Your task to perform on an android device: open app "YouTube Kids" (install if not already installed) Image 0: 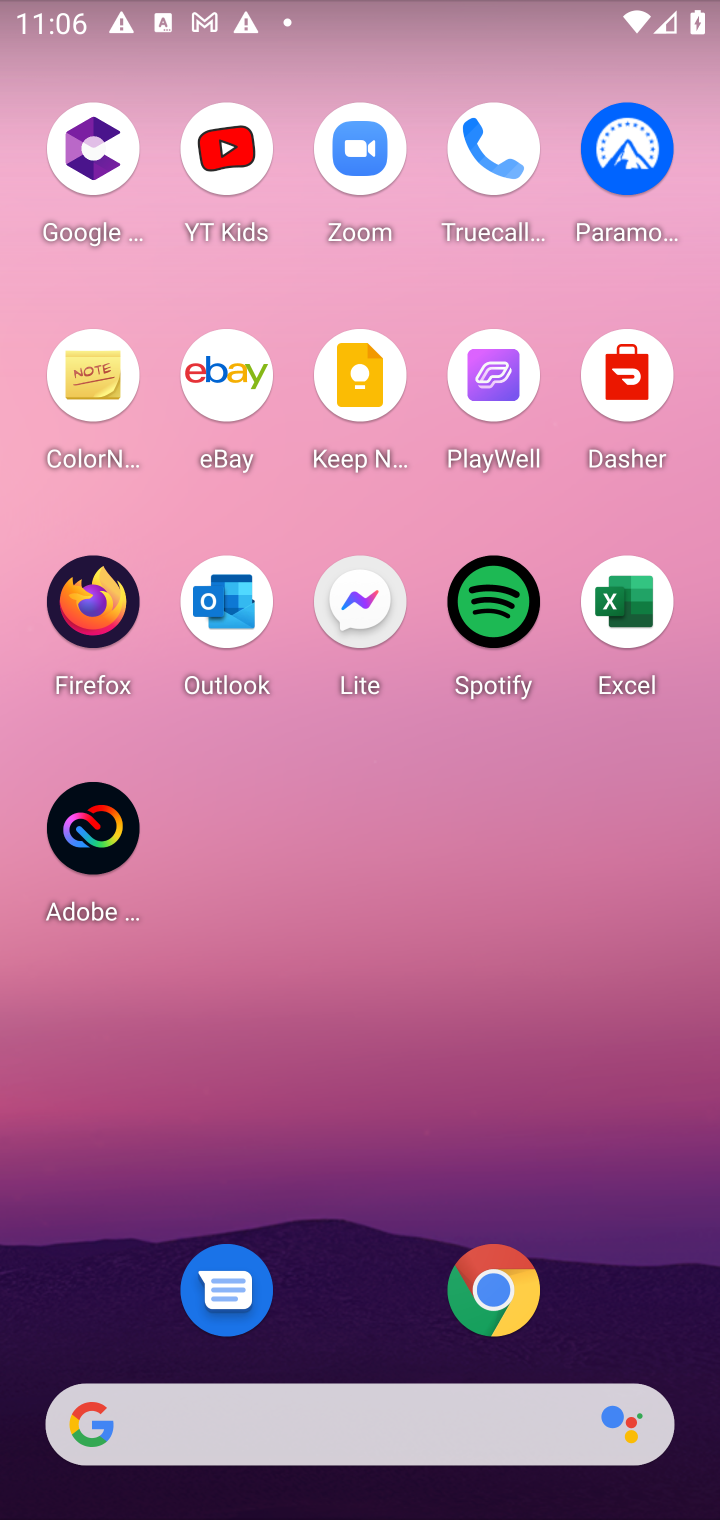
Step 0: press home button
Your task to perform on an android device: open app "YouTube Kids" (install if not already installed) Image 1: 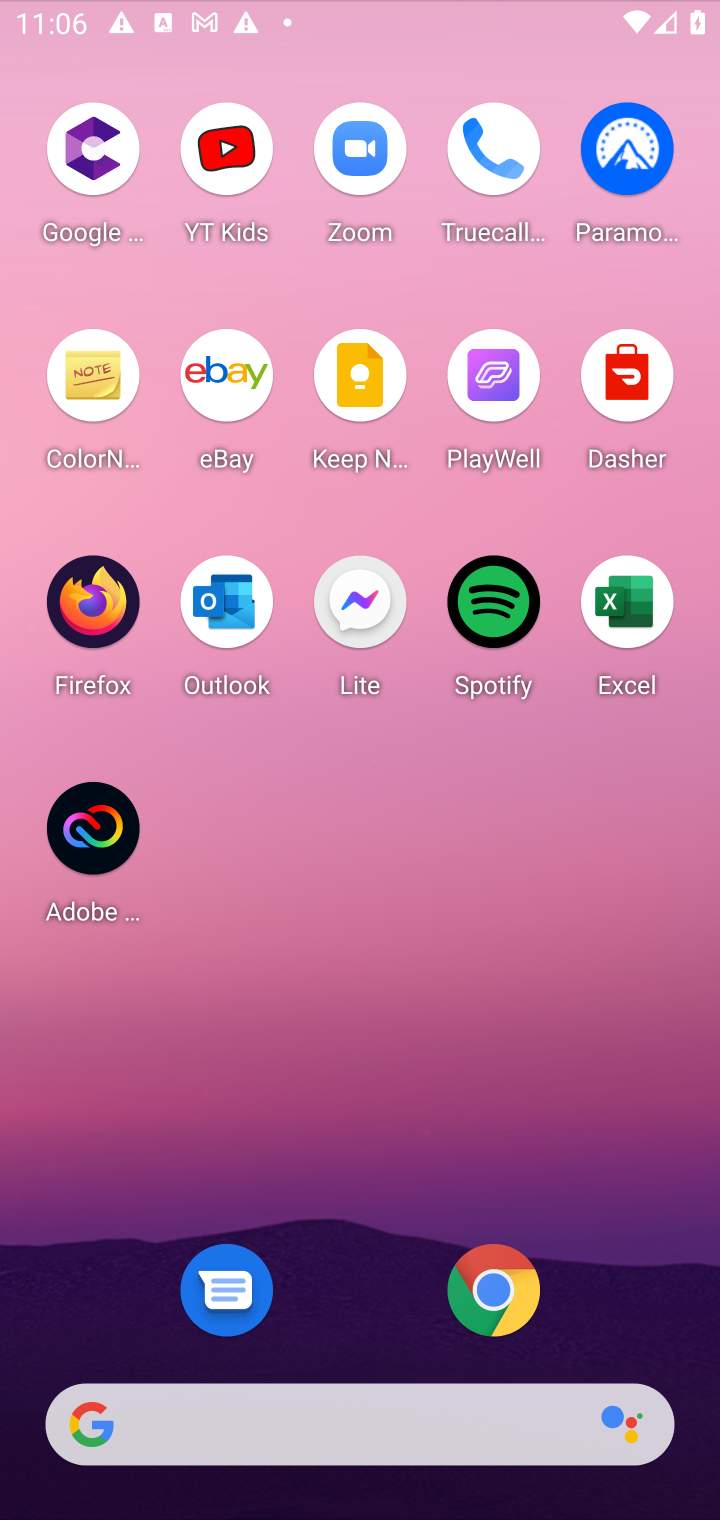
Step 1: drag from (640, 1282) to (607, 158)
Your task to perform on an android device: open app "YouTube Kids" (install if not already installed) Image 2: 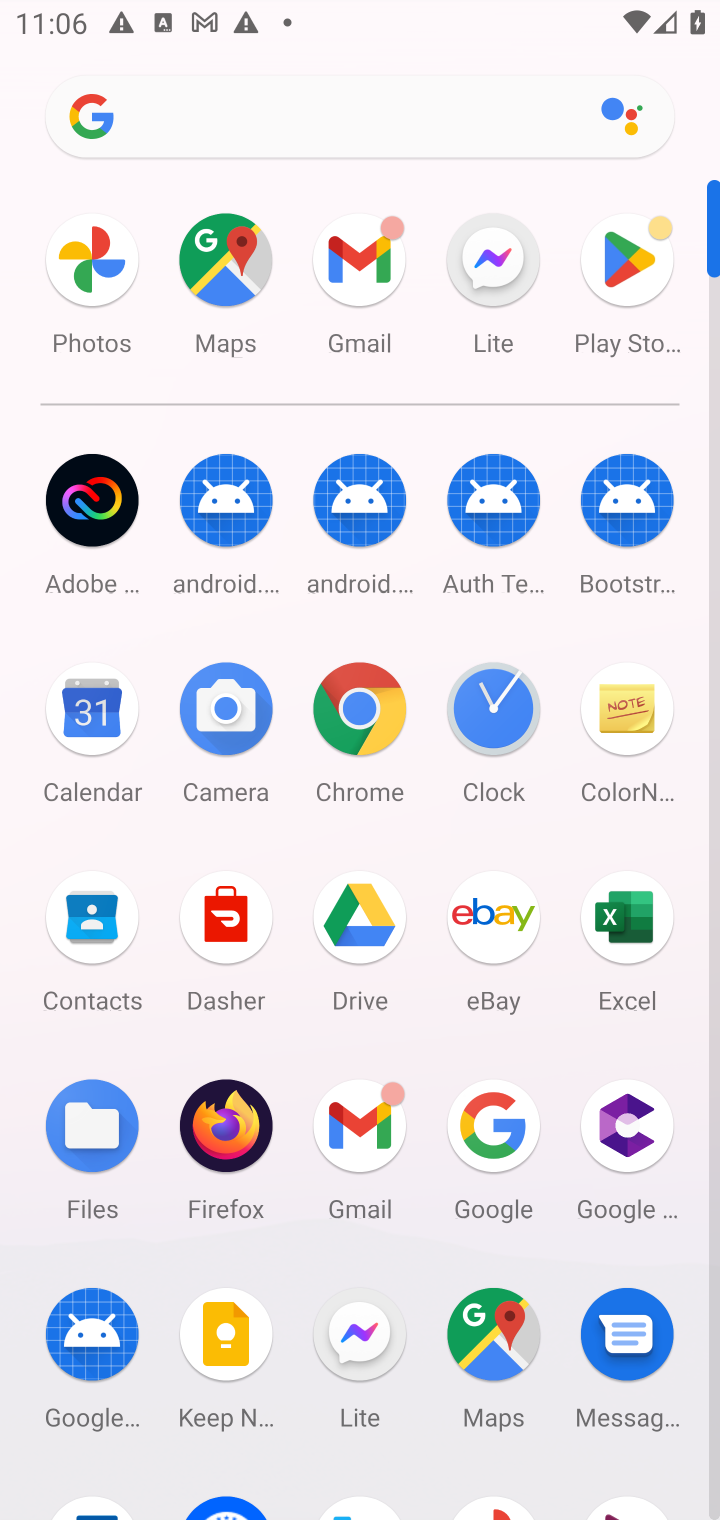
Step 2: click (630, 263)
Your task to perform on an android device: open app "YouTube Kids" (install if not already installed) Image 3: 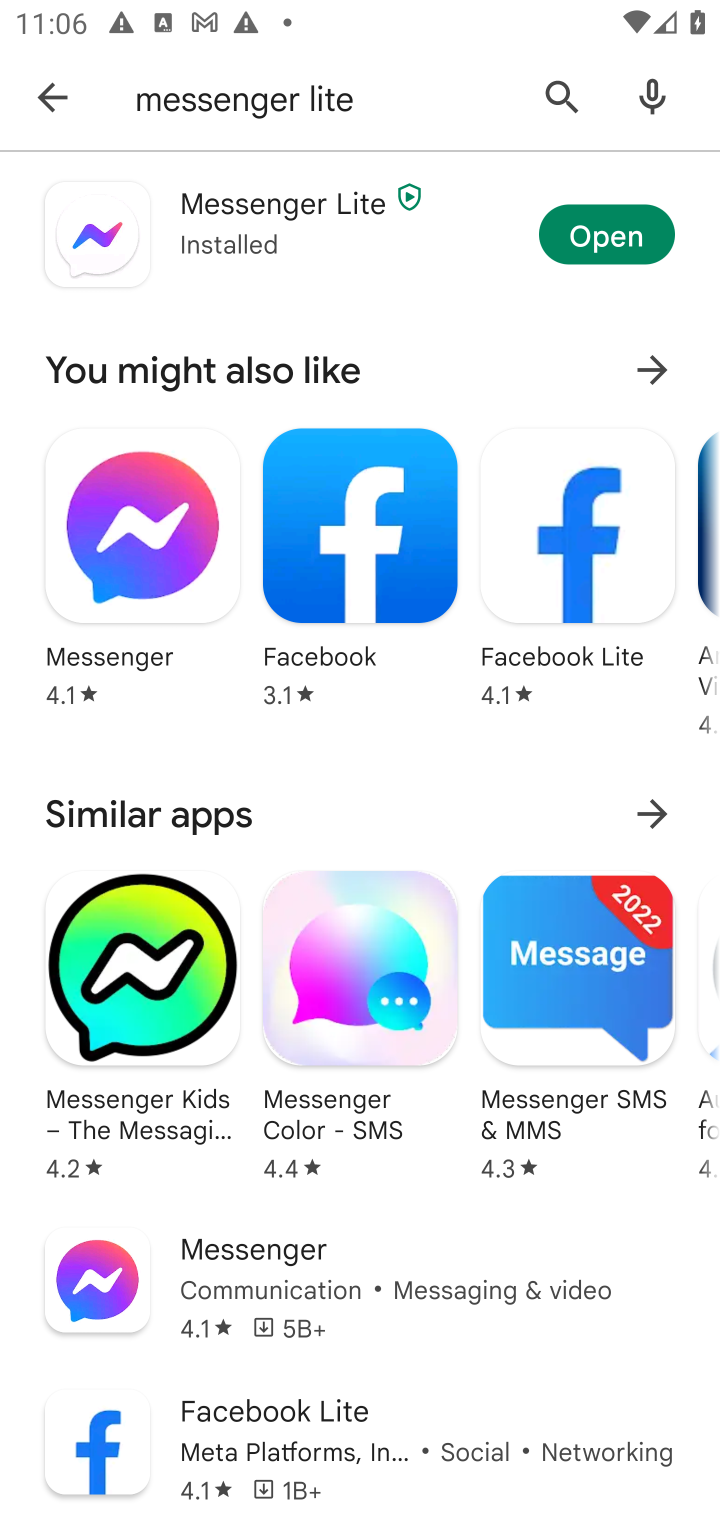
Step 3: click (540, 87)
Your task to perform on an android device: open app "YouTube Kids" (install if not already installed) Image 4: 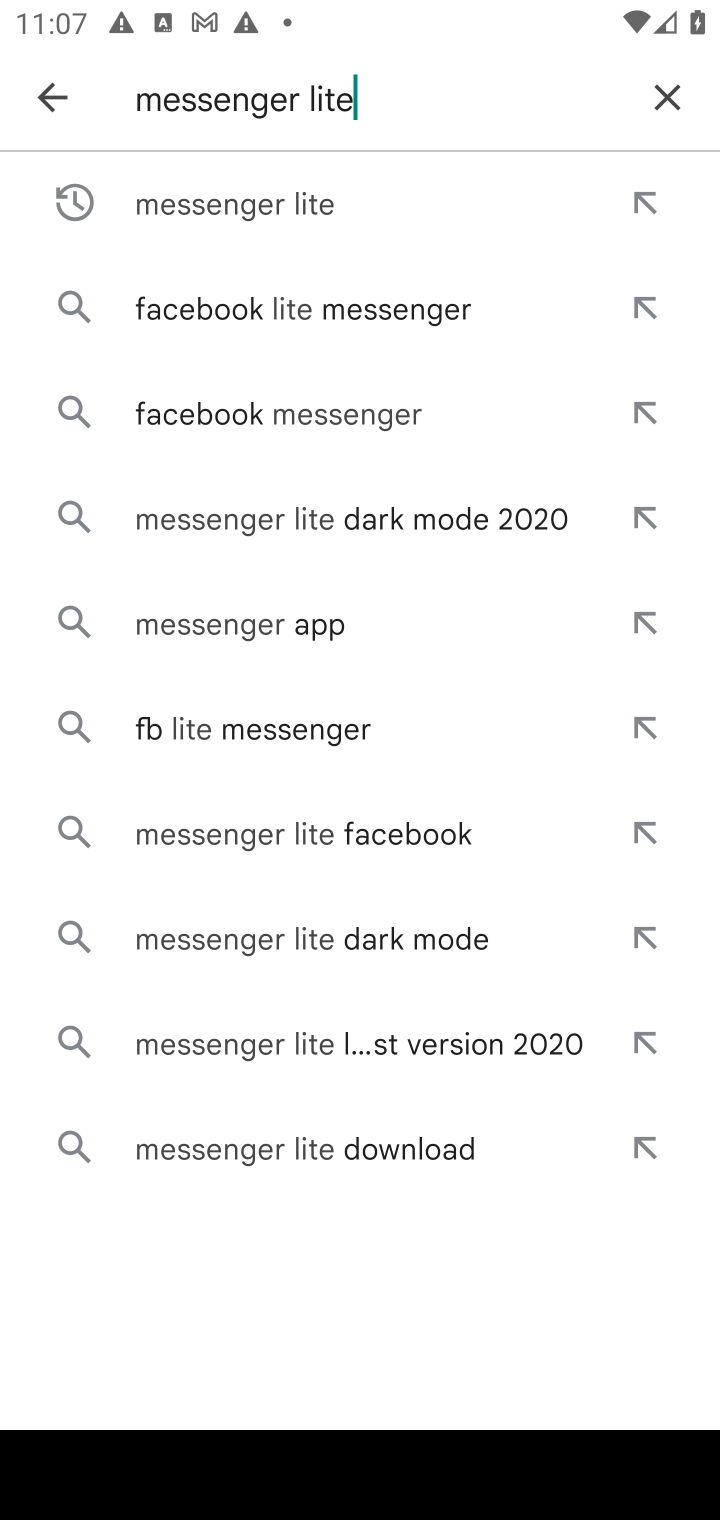
Step 4: click (656, 88)
Your task to perform on an android device: open app "YouTube Kids" (install if not already installed) Image 5: 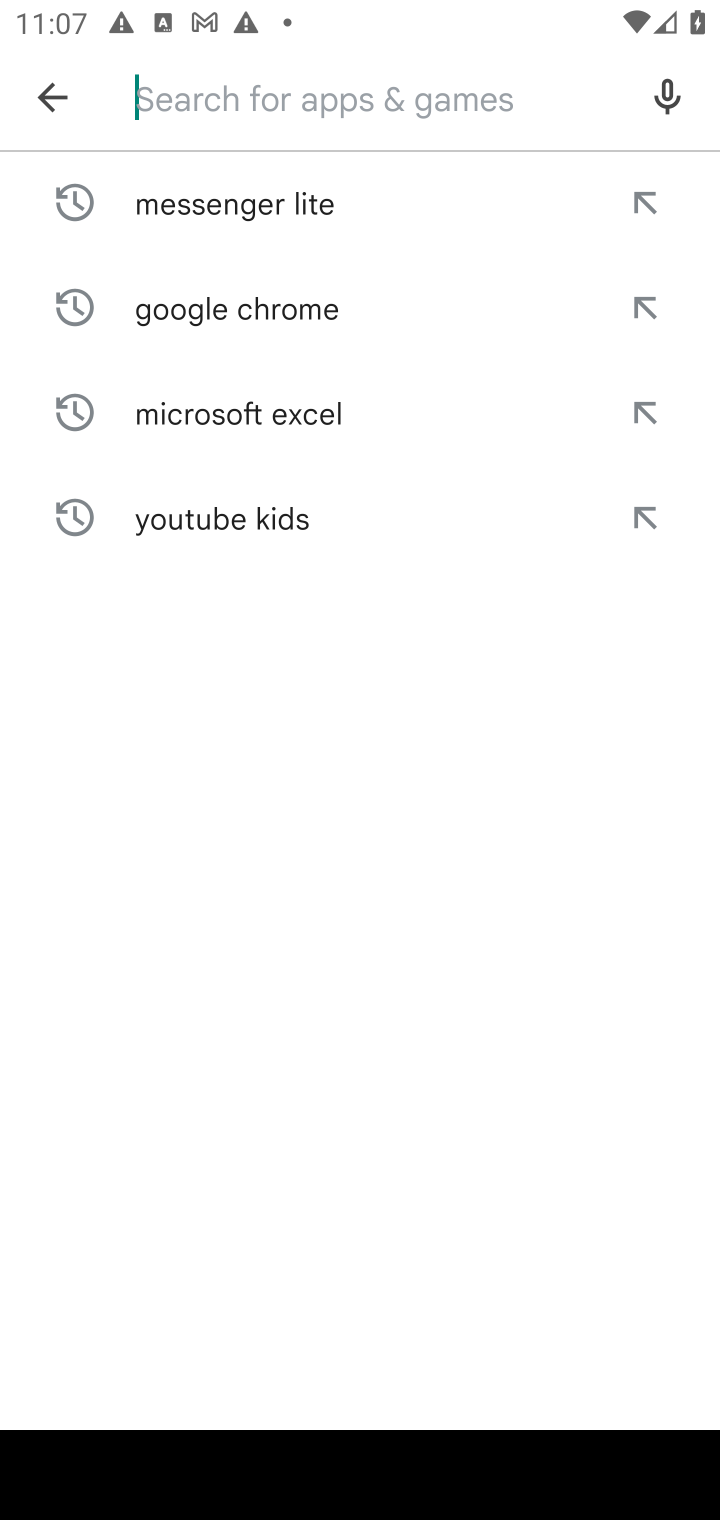
Step 5: type "youtube kids"
Your task to perform on an android device: open app "YouTube Kids" (install if not already installed) Image 6: 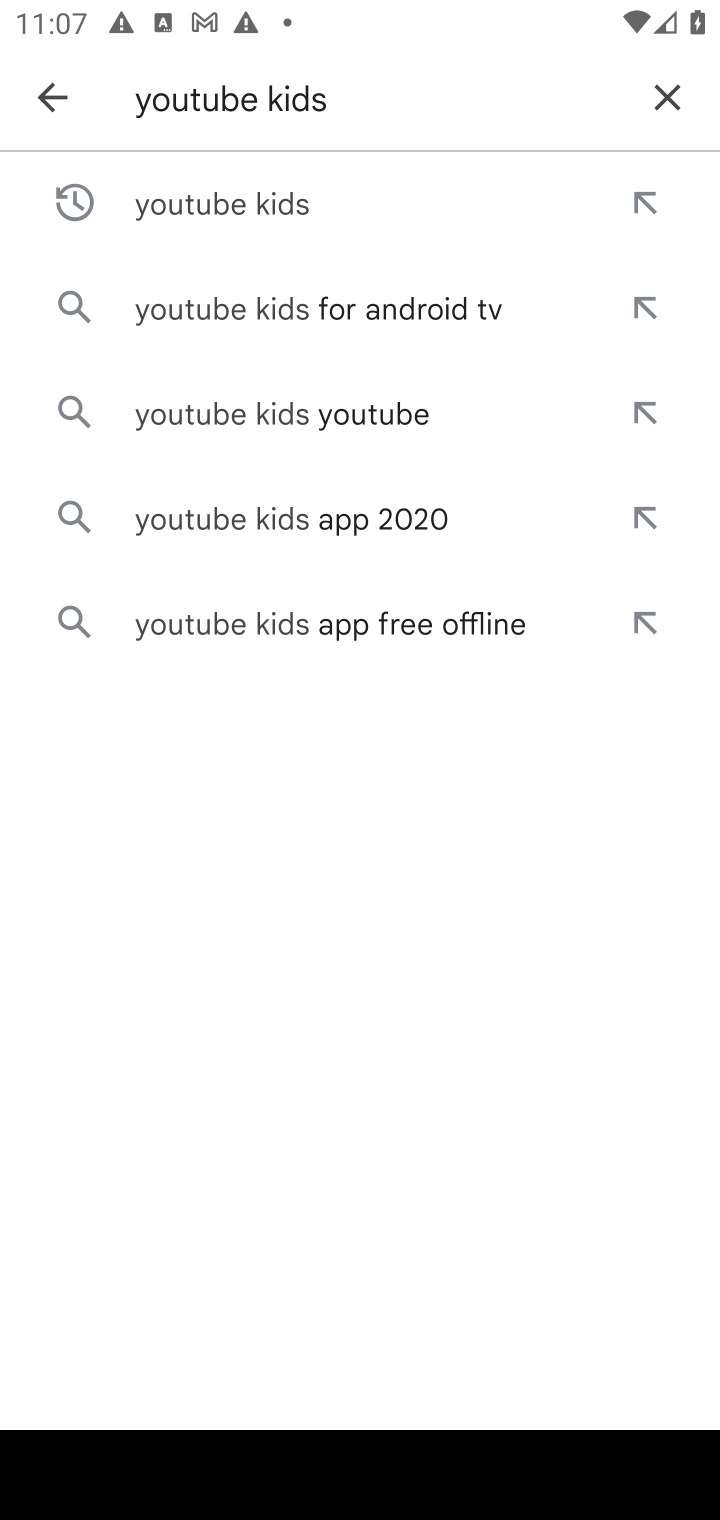
Step 6: click (413, 208)
Your task to perform on an android device: open app "YouTube Kids" (install if not already installed) Image 7: 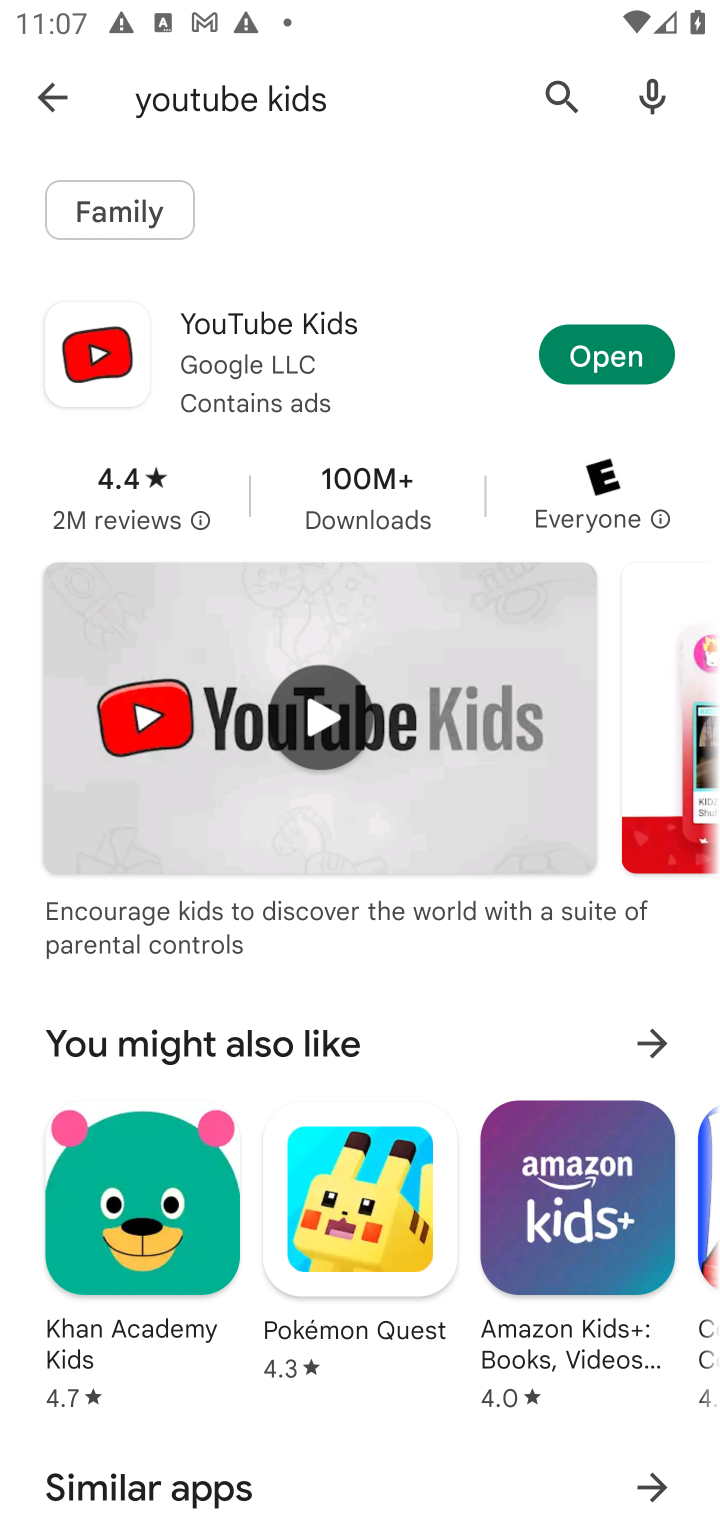
Step 7: click (619, 360)
Your task to perform on an android device: open app "YouTube Kids" (install if not already installed) Image 8: 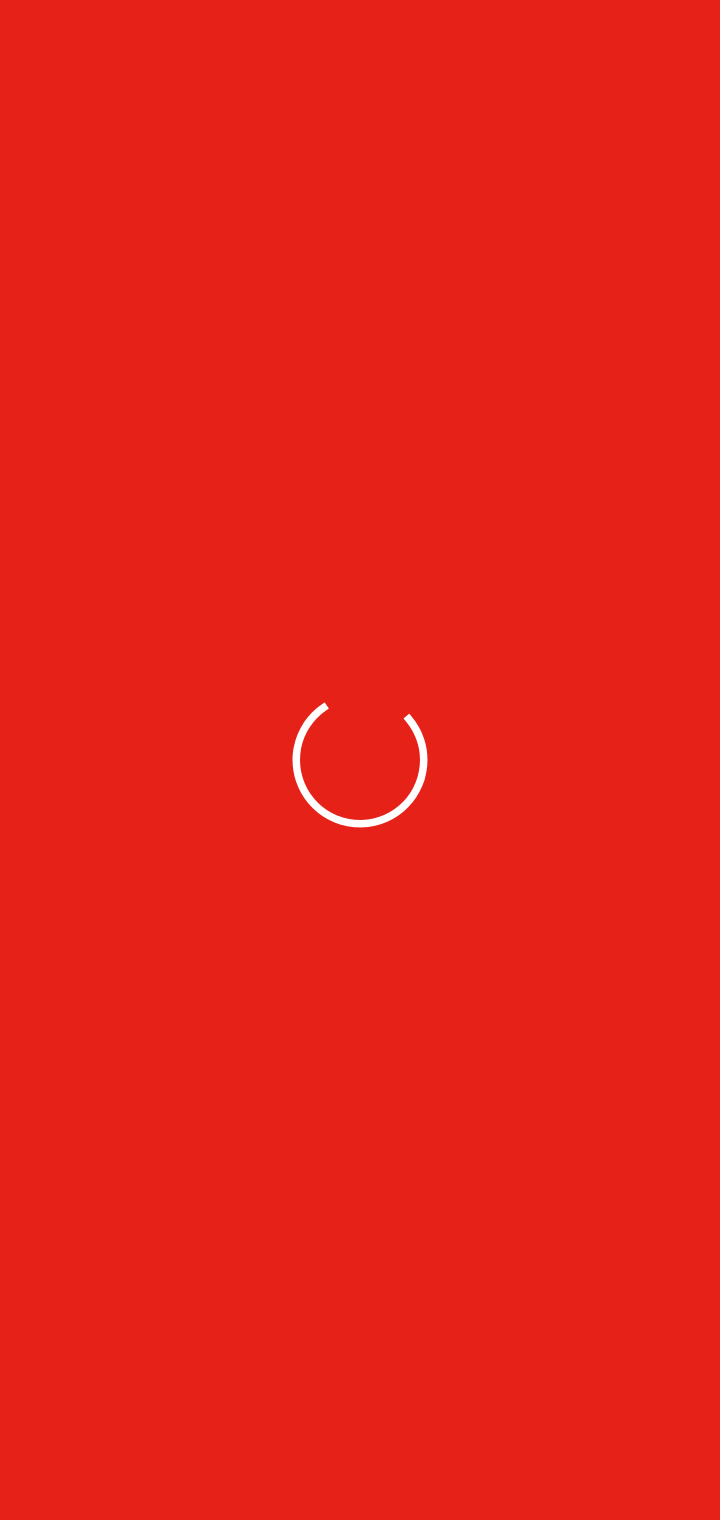
Step 8: task complete